Your task to perform on an android device: Open Chrome and go to settings Image 0: 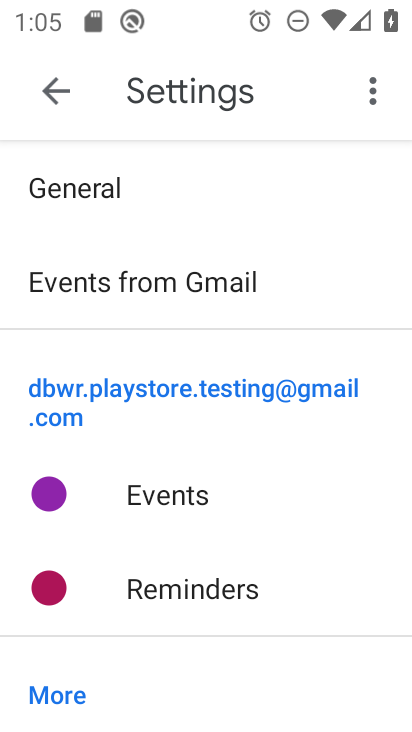
Step 0: press home button
Your task to perform on an android device: Open Chrome and go to settings Image 1: 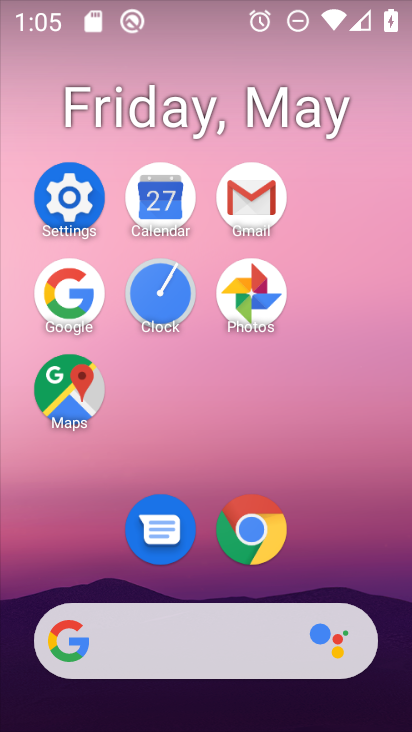
Step 1: click (249, 516)
Your task to perform on an android device: Open Chrome and go to settings Image 2: 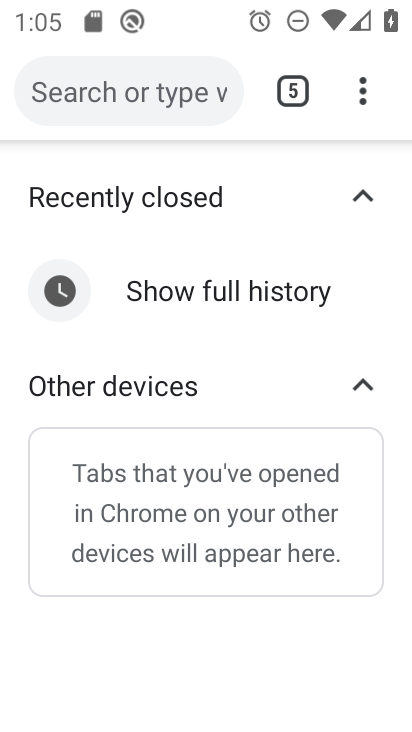
Step 2: click (373, 85)
Your task to perform on an android device: Open Chrome and go to settings Image 3: 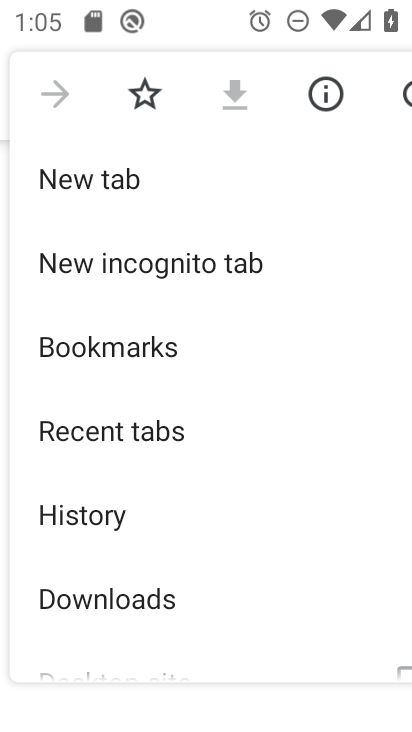
Step 3: drag from (159, 543) to (199, 255)
Your task to perform on an android device: Open Chrome and go to settings Image 4: 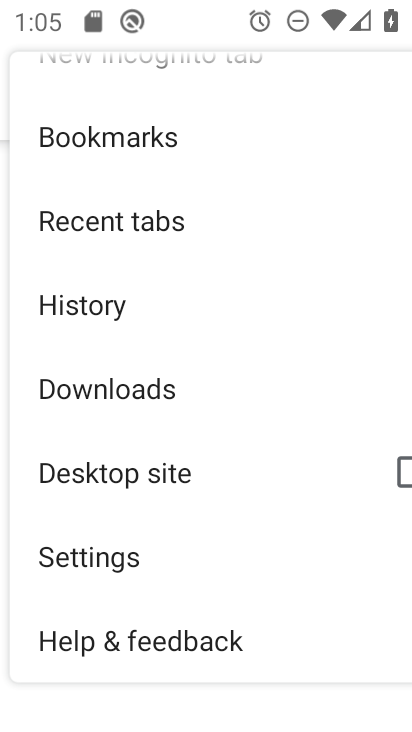
Step 4: click (149, 553)
Your task to perform on an android device: Open Chrome and go to settings Image 5: 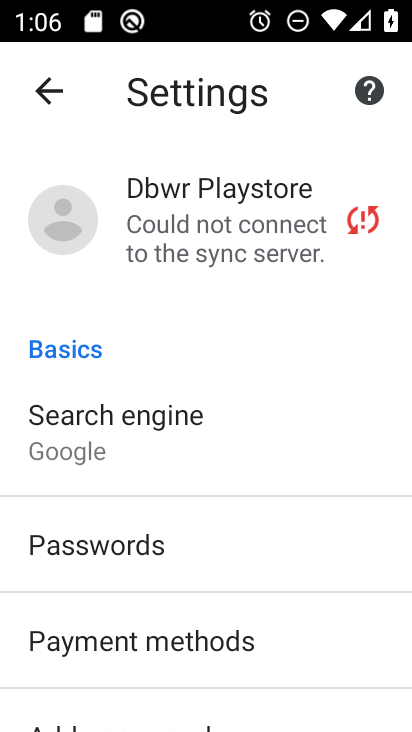
Step 5: task complete